Your task to perform on an android device: Search for seafood restaurants on Google Maps Image 0: 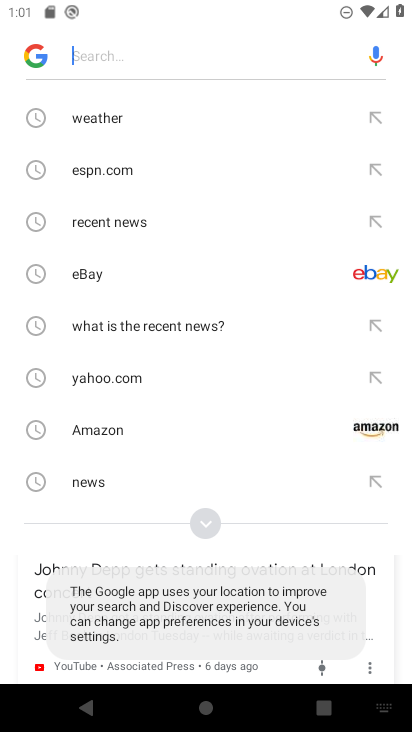
Step 0: press back button
Your task to perform on an android device: Search for seafood restaurants on Google Maps Image 1: 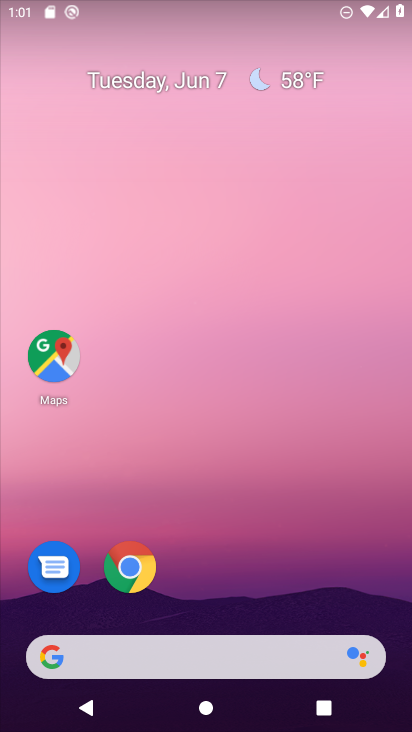
Step 1: click (54, 360)
Your task to perform on an android device: Search for seafood restaurants on Google Maps Image 2: 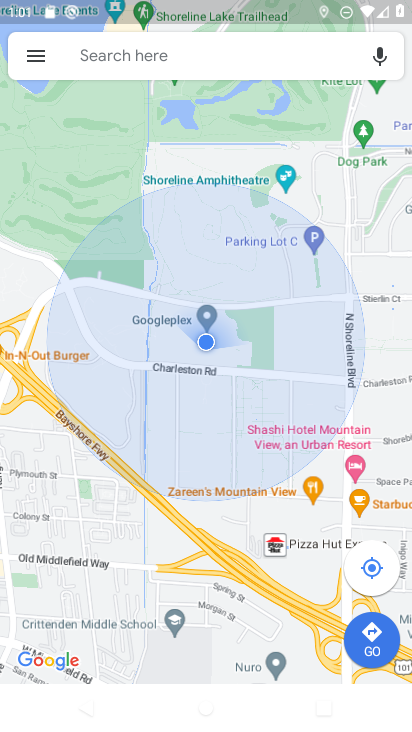
Step 2: click (133, 57)
Your task to perform on an android device: Search for seafood restaurants on Google Maps Image 3: 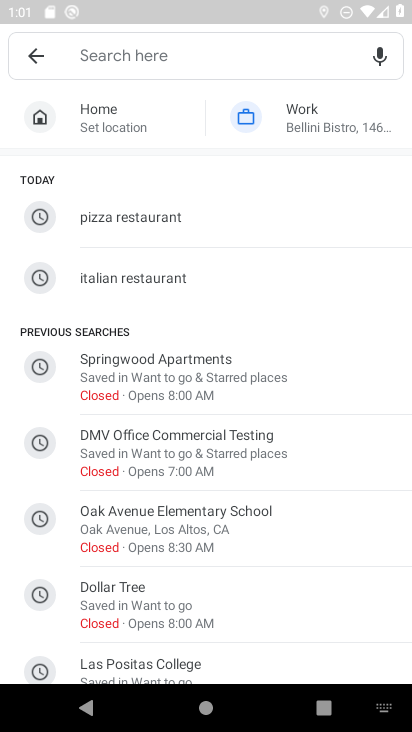
Step 3: type "seafood restaurants"
Your task to perform on an android device: Search for seafood restaurants on Google Maps Image 4: 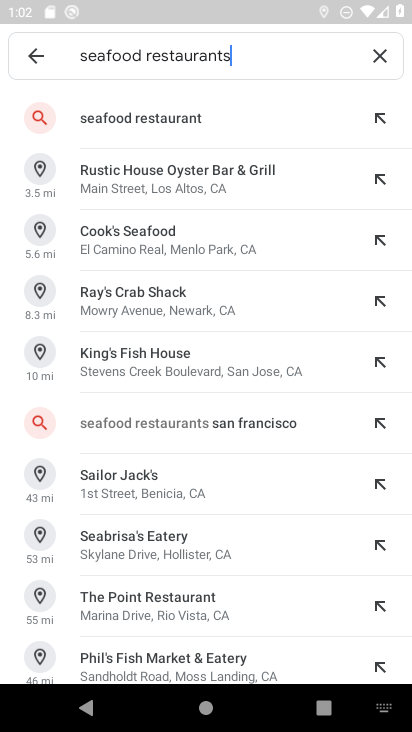
Step 4: click (137, 121)
Your task to perform on an android device: Search for seafood restaurants on Google Maps Image 5: 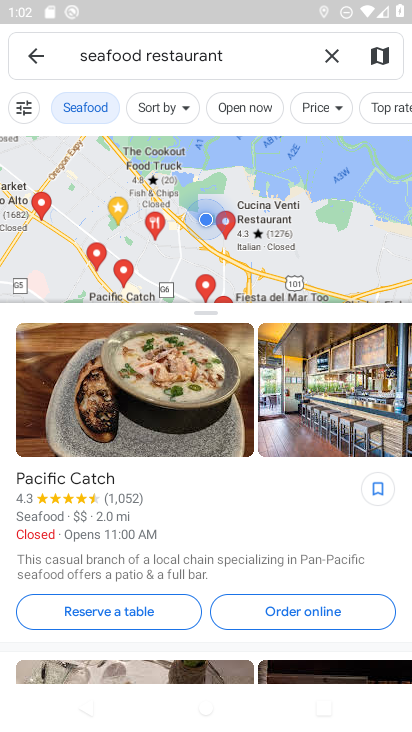
Step 5: task complete